Your task to perform on an android device: turn off javascript in the chrome app Image 0: 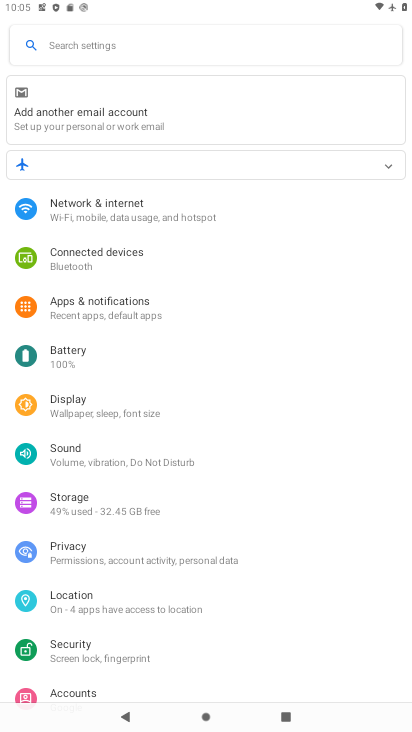
Step 0: task complete